Your task to perform on an android device: open device folders in google photos Image 0: 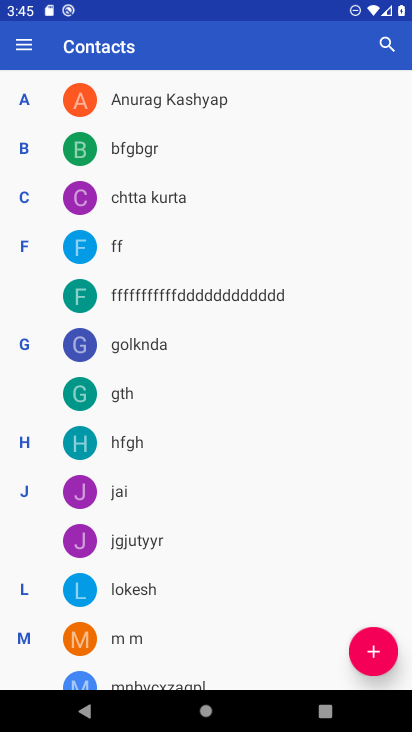
Step 0: press home button
Your task to perform on an android device: open device folders in google photos Image 1: 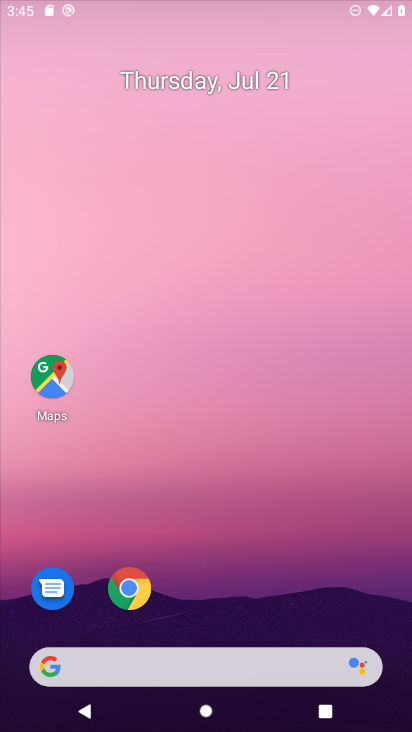
Step 1: drag from (229, 578) to (218, 85)
Your task to perform on an android device: open device folders in google photos Image 2: 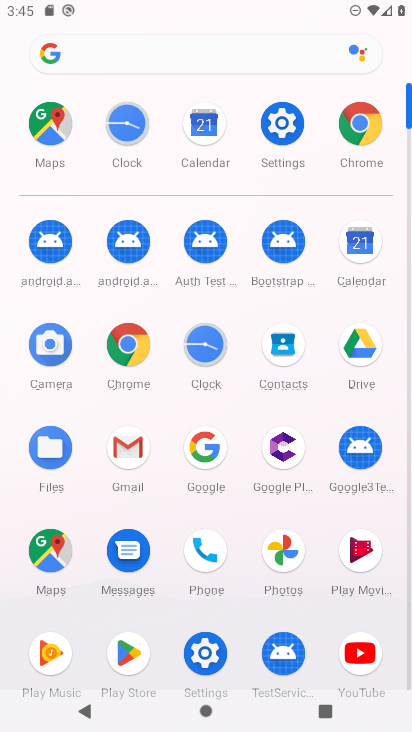
Step 2: click (270, 554)
Your task to perform on an android device: open device folders in google photos Image 3: 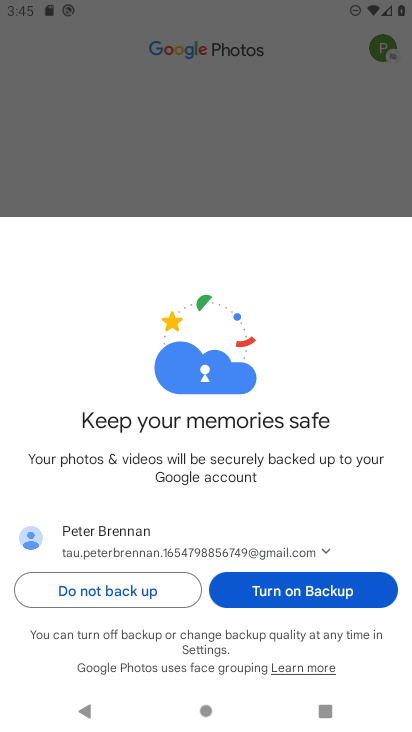
Step 3: click (278, 598)
Your task to perform on an android device: open device folders in google photos Image 4: 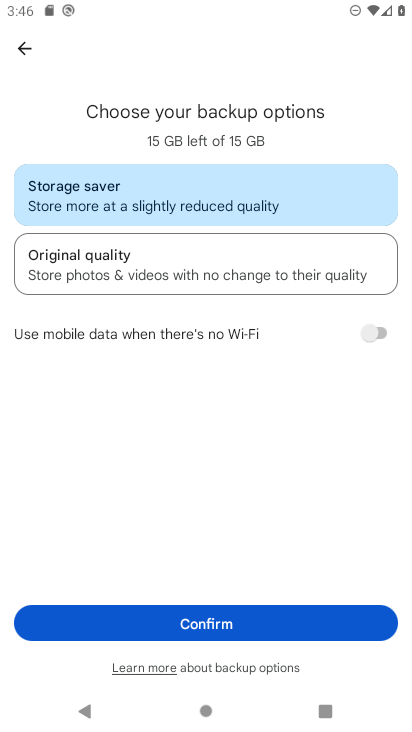
Step 4: click (278, 625)
Your task to perform on an android device: open device folders in google photos Image 5: 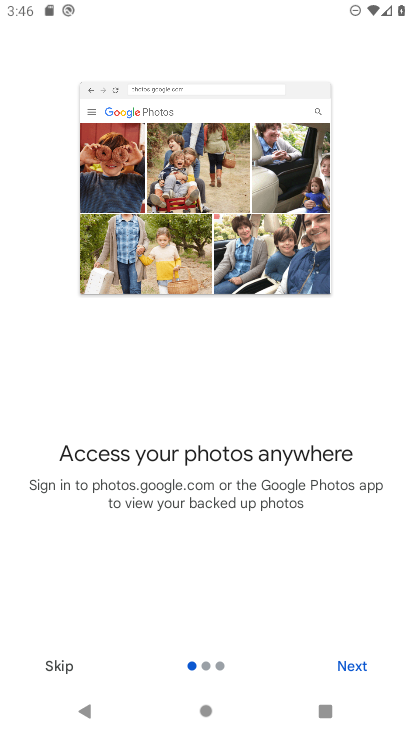
Step 5: click (345, 668)
Your task to perform on an android device: open device folders in google photos Image 6: 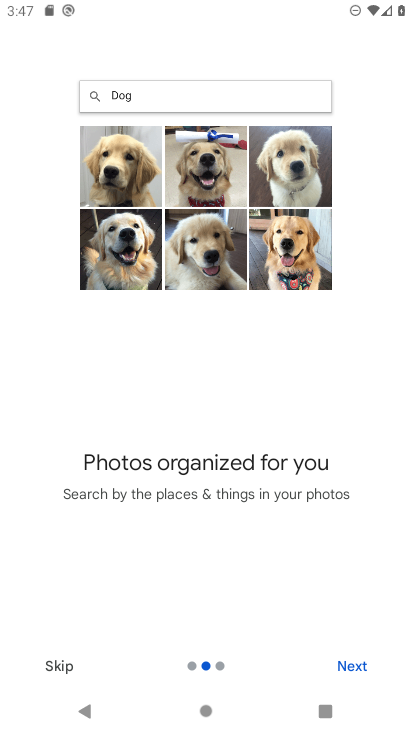
Step 6: click (362, 672)
Your task to perform on an android device: open device folders in google photos Image 7: 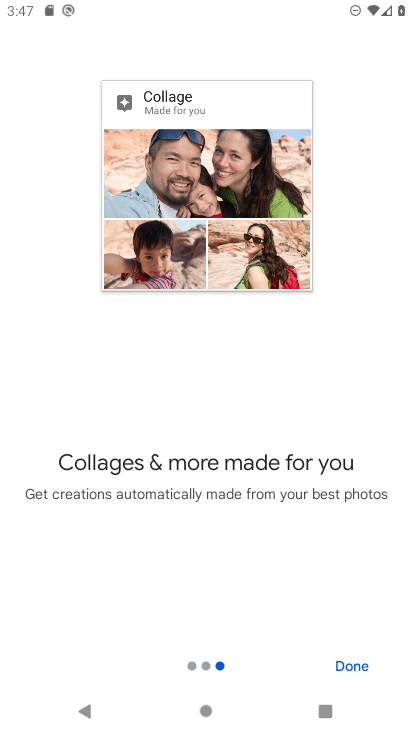
Step 7: click (359, 669)
Your task to perform on an android device: open device folders in google photos Image 8: 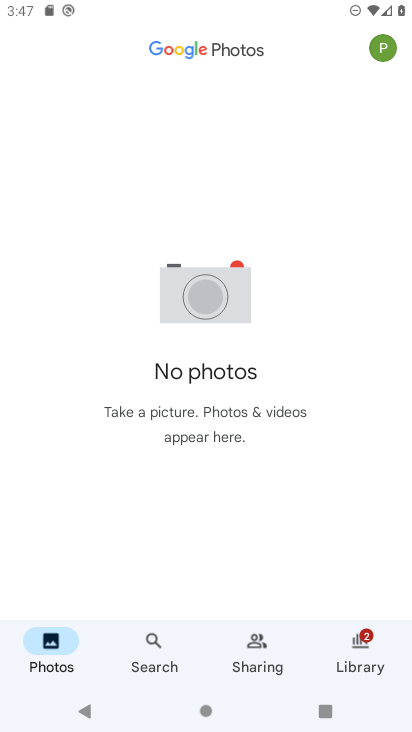
Step 8: click (378, 59)
Your task to perform on an android device: open device folders in google photos Image 9: 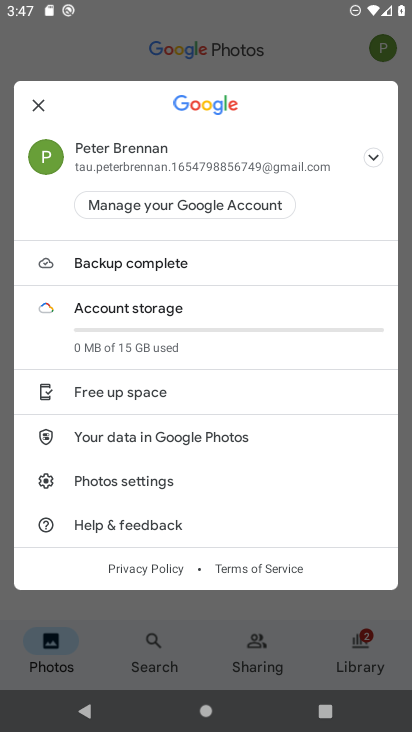
Step 9: task complete